Your task to perform on an android device: turn on data saver in the chrome app Image 0: 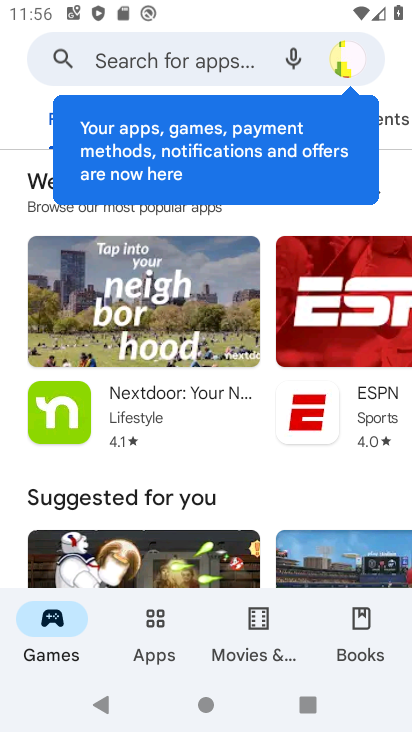
Step 0: press home button
Your task to perform on an android device: turn on data saver in the chrome app Image 1: 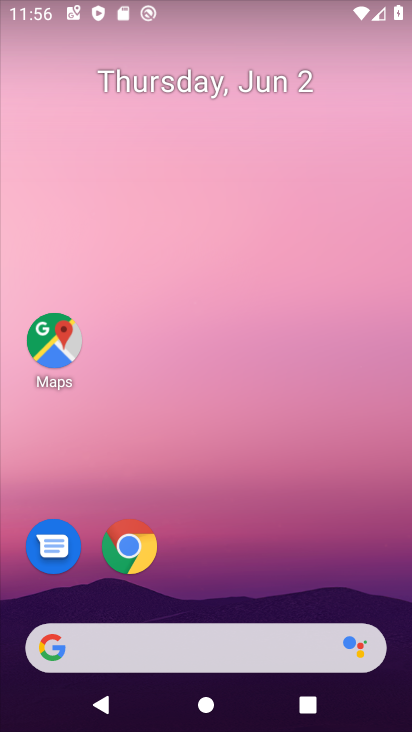
Step 1: click (138, 568)
Your task to perform on an android device: turn on data saver in the chrome app Image 2: 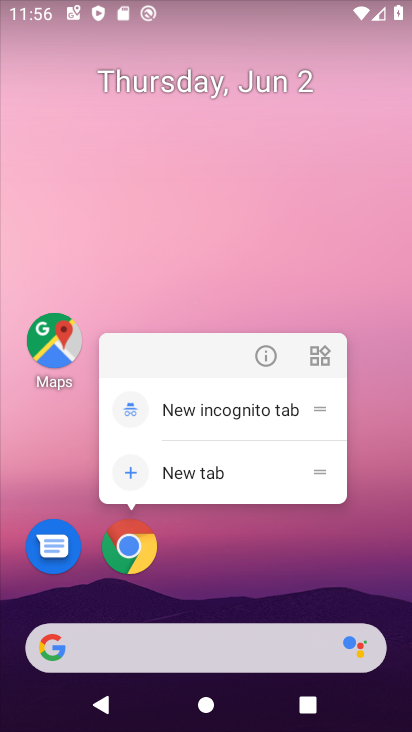
Step 2: click (148, 557)
Your task to perform on an android device: turn on data saver in the chrome app Image 3: 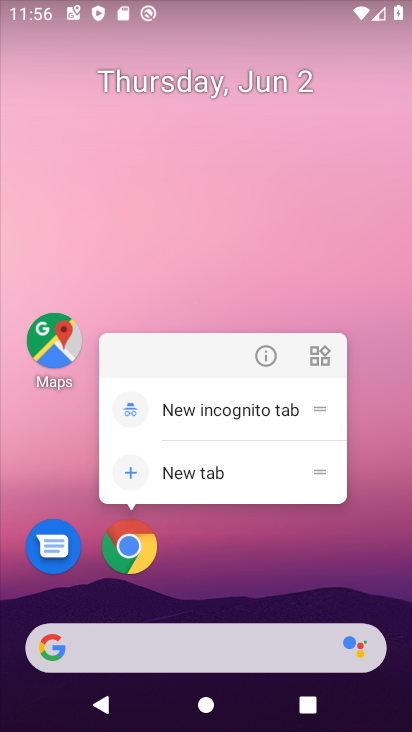
Step 3: click (147, 557)
Your task to perform on an android device: turn on data saver in the chrome app Image 4: 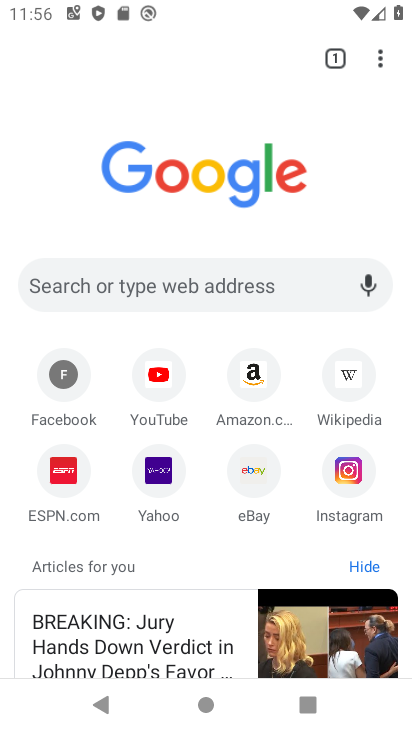
Step 4: drag from (390, 60) to (274, 491)
Your task to perform on an android device: turn on data saver in the chrome app Image 5: 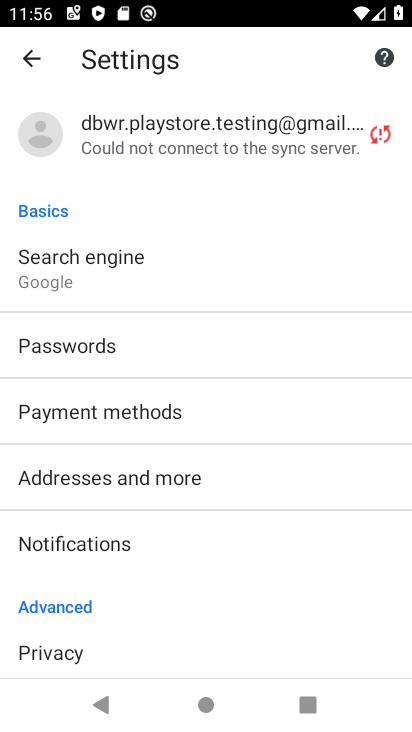
Step 5: drag from (81, 664) to (257, 231)
Your task to perform on an android device: turn on data saver in the chrome app Image 6: 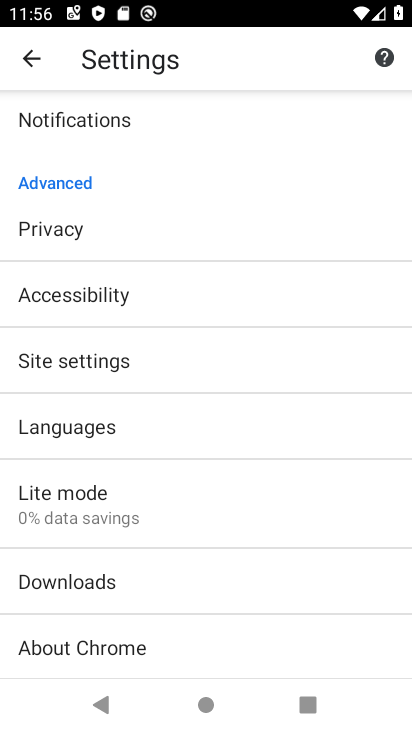
Step 6: drag from (152, 592) to (181, 487)
Your task to perform on an android device: turn on data saver in the chrome app Image 7: 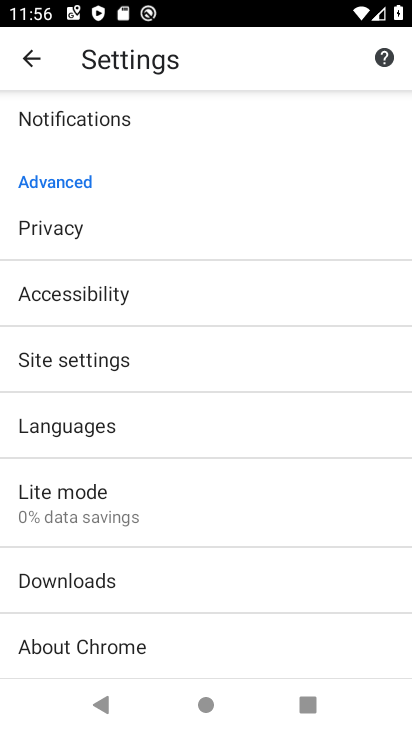
Step 7: click (135, 482)
Your task to perform on an android device: turn on data saver in the chrome app Image 8: 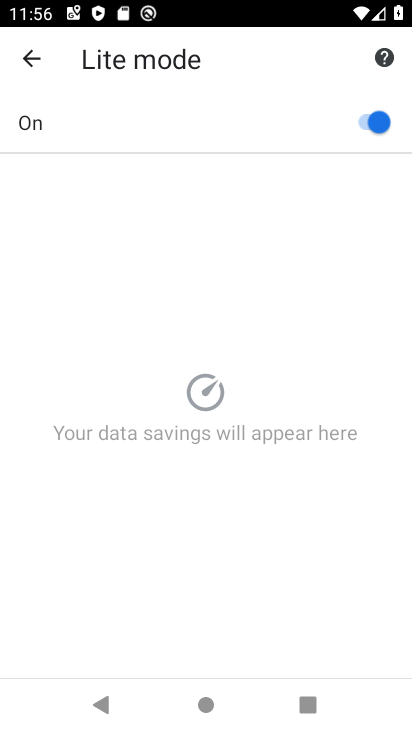
Step 8: task complete